Your task to perform on an android device: turn on showing notifications on the lock screen Image 0: 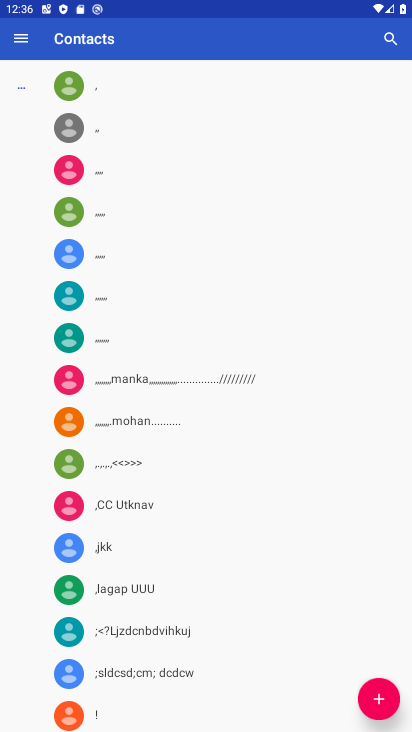
Step 0: press back button
Your task to perform on an android device: turn on showing notifications on the lock screen Image 1: 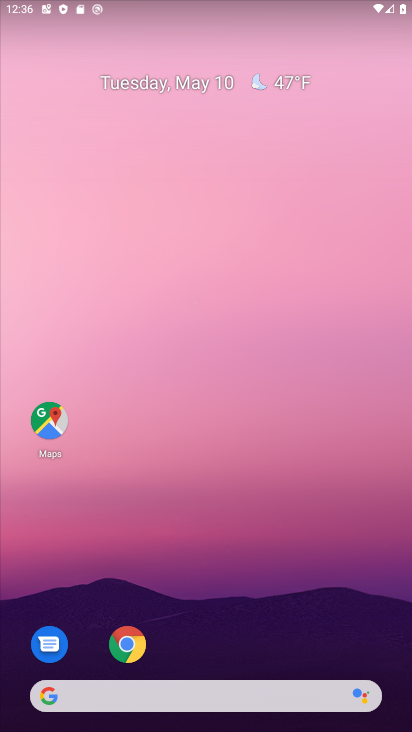
Step 1: drag from (135, 663) to (249, 200)
Your task to perform on an android device: turn on showing notifications on the lock screen Image 2: 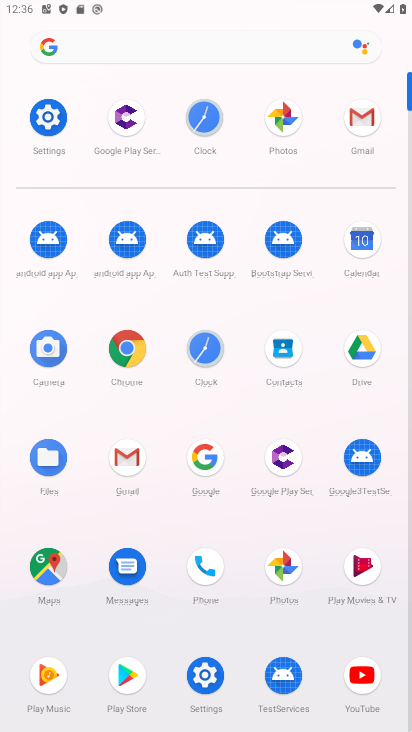
Step 2: click (54, 126)
Your task to perform on an android device: turn on showing notifications on the lock screen Image 3: 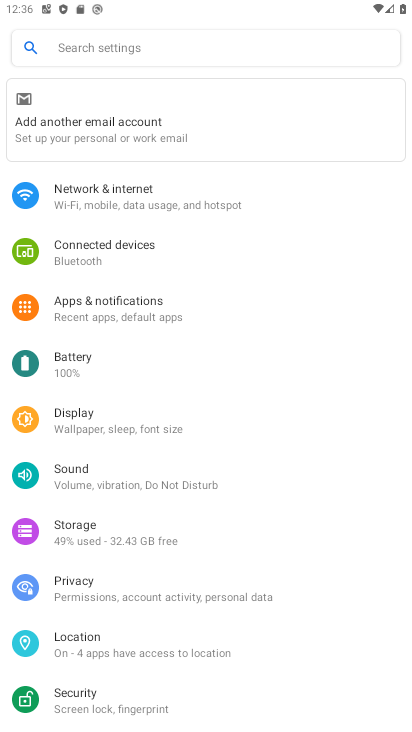
Step 3: click (109, 315)
Your task to perform on an android device: turn on showing notifications on the lock screen Image 4: 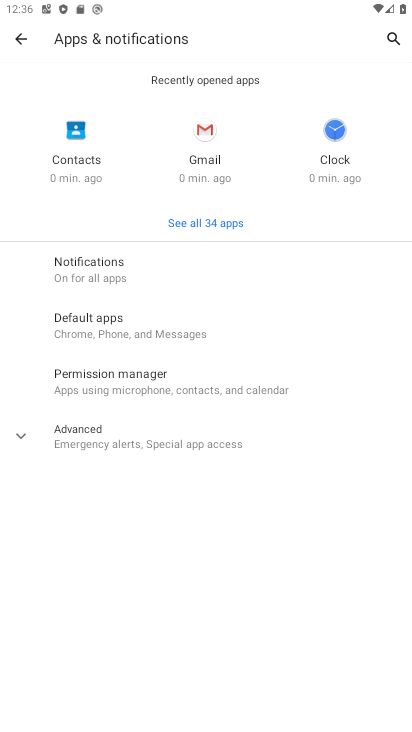
Step 4: click (104, 271)
Your task to perform on an android device: turn on showing notifications on the lock screen Image 5: 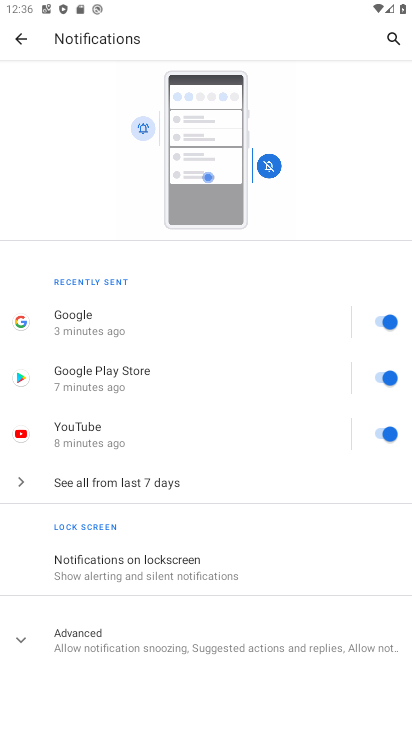
Step 5: click (184, 579)
Your task to perform on an android device: turn on showing notifications on the lock screen Image 6: 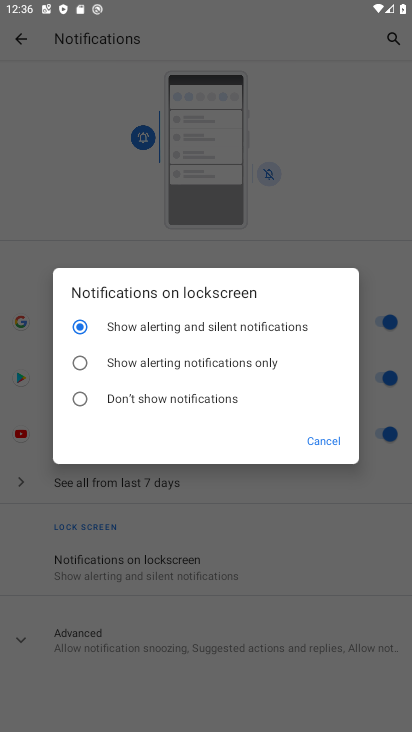
Step 6: click (84, 329)
Your task to perform on an android device: turn on showing notifications on the lock screen Image 7: 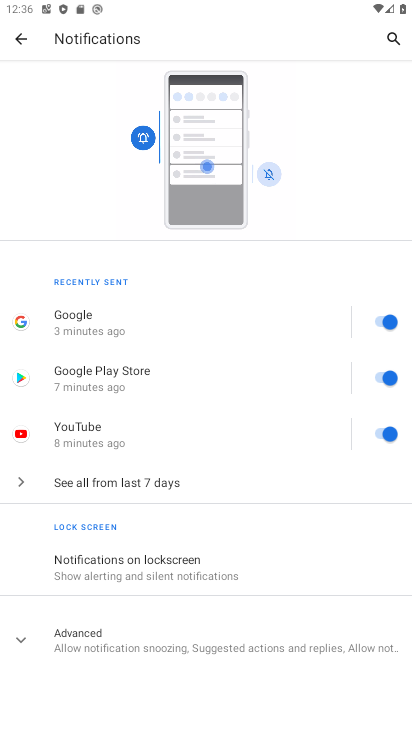
Step 7: task complete